Your task to perform on an android device: change the clock display to show seconds Image 0: 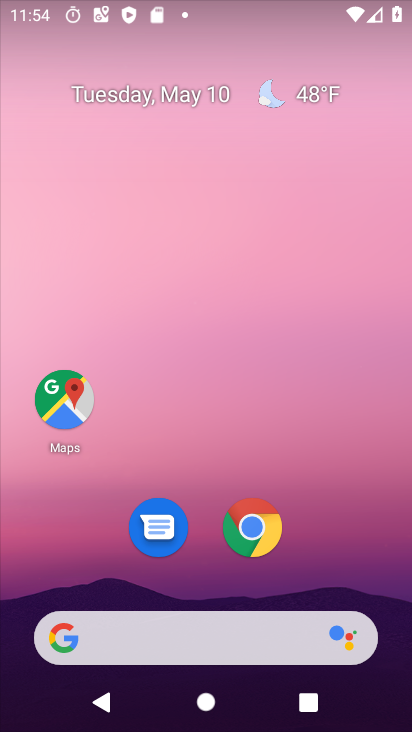
Step 0: drag from (218, 727) to (234, 5)
Your task to perform on an android device: change the clock display to show seconds Image 1: 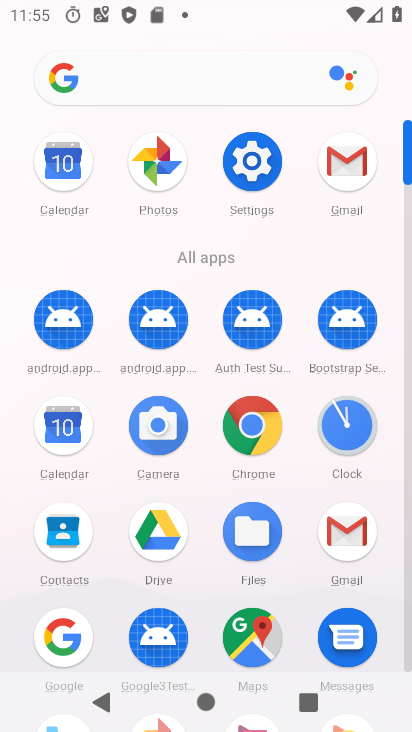
Step 1: click (352, 422)
Your task to perform on an android device: change the clock display to show seconds Image 2: 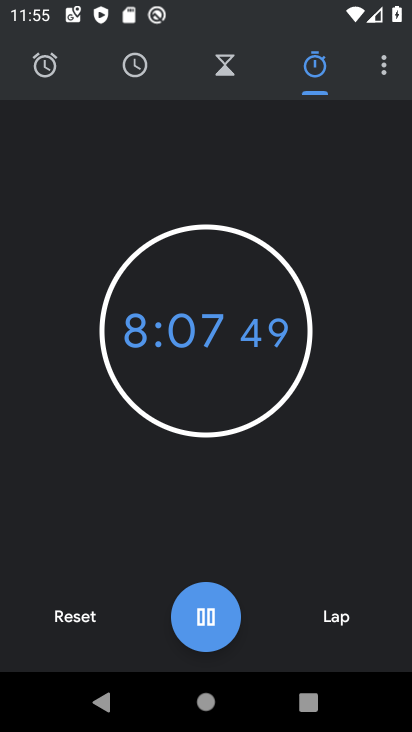
Step 2: click (387, 72)
Your task to perform on an android device: change the clock display to show seconds Image 3: 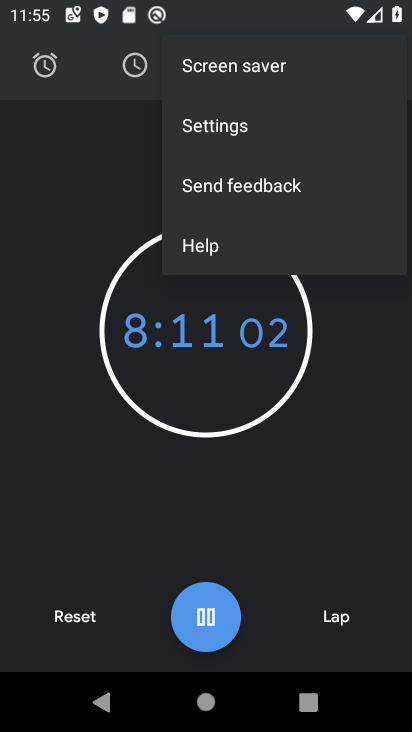
Step 3: click (203, 126)
Your task to perform on an android device: change the clock display to show seconds Image 4: 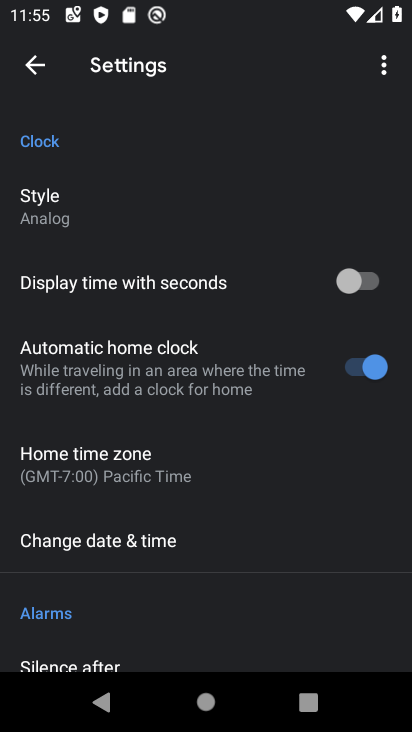
Step 4: click (372, 280)
Your task to perform on an android device: change the clock display to show seconds Image 5: 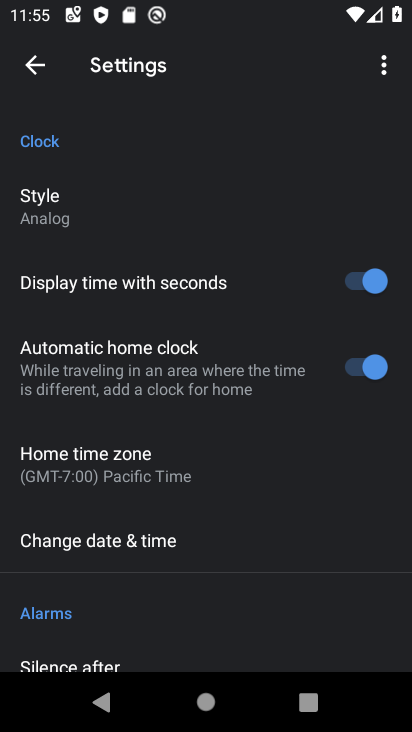
Step 5: task complete